Your task to perform on an android device: Check the weather Image 0: 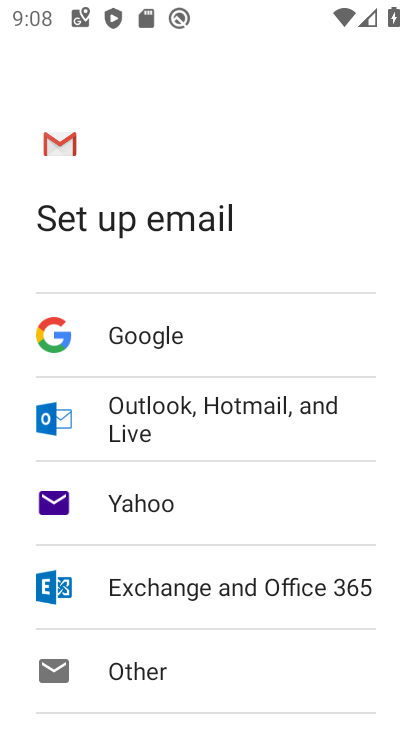
Step 0: press home button
Your task to perform on an android device: Check the weather Image 1: 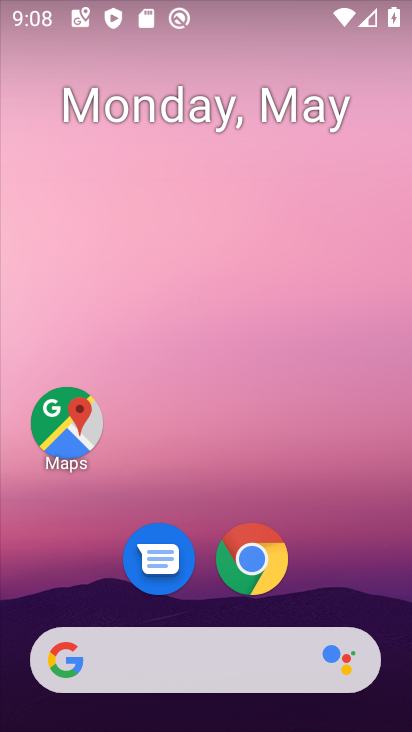
Step 1: click (226, 653)
Your task to perform on an android device: Check the weather Image 2: 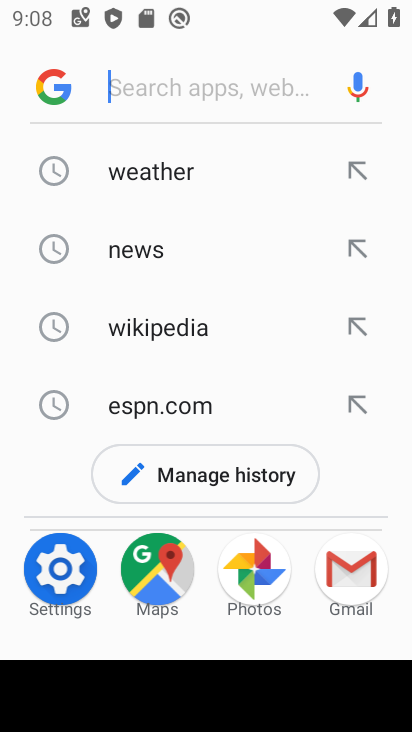
Step 2: click (153, 164)
Your task to perform on an android device: Check the weather Image 3: 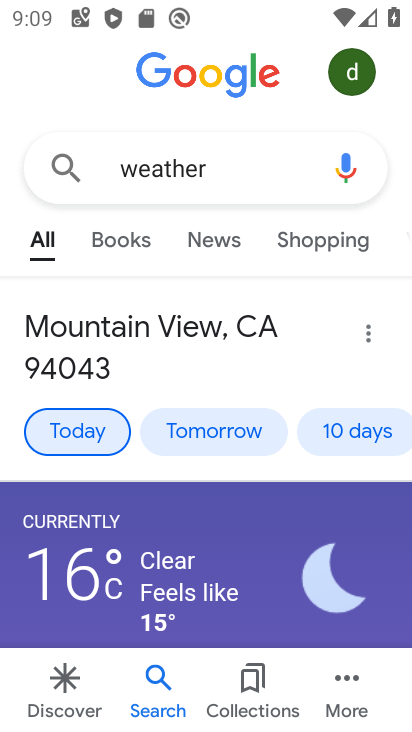
Step 3: drag from (225, 495) to (185, 265)
Your task to perform on an android device: Check the weather Image 4: 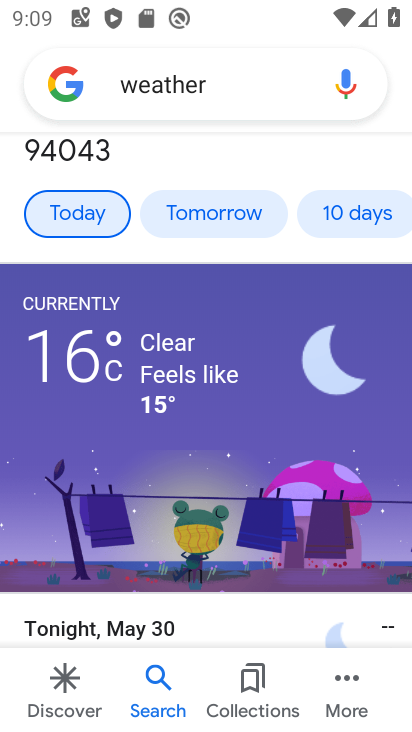
Step 4: drag from (218, 398) to (180, 183)
Your task to perform on an android device: Check the weather Image 5: 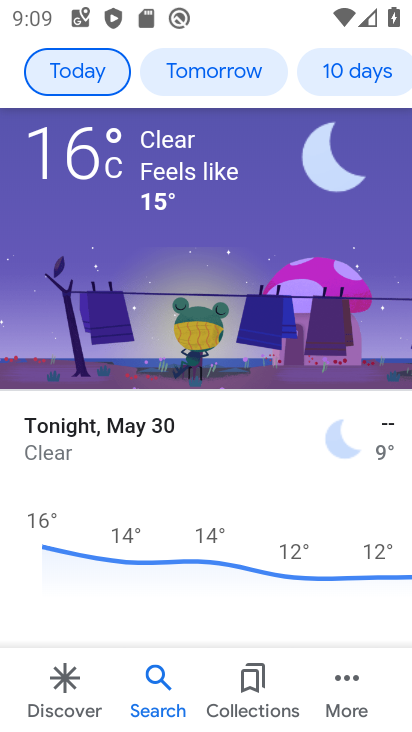
Step 5: click (248, 459)
Your task to perform on an android device: Check the weather Image 6: 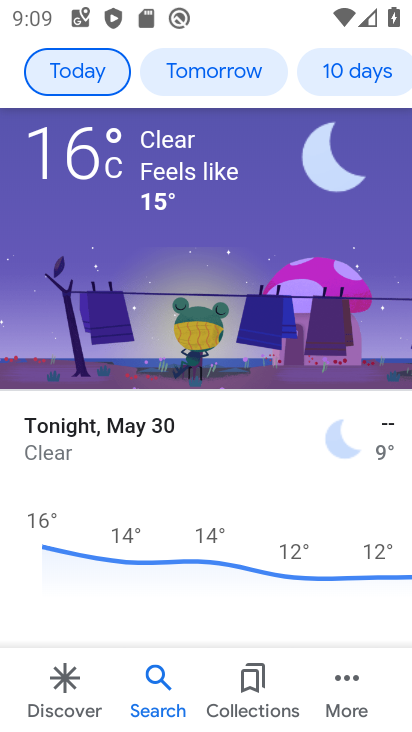
Step 6: task complete